Your task to perform on an android device: Open settings Image 0: 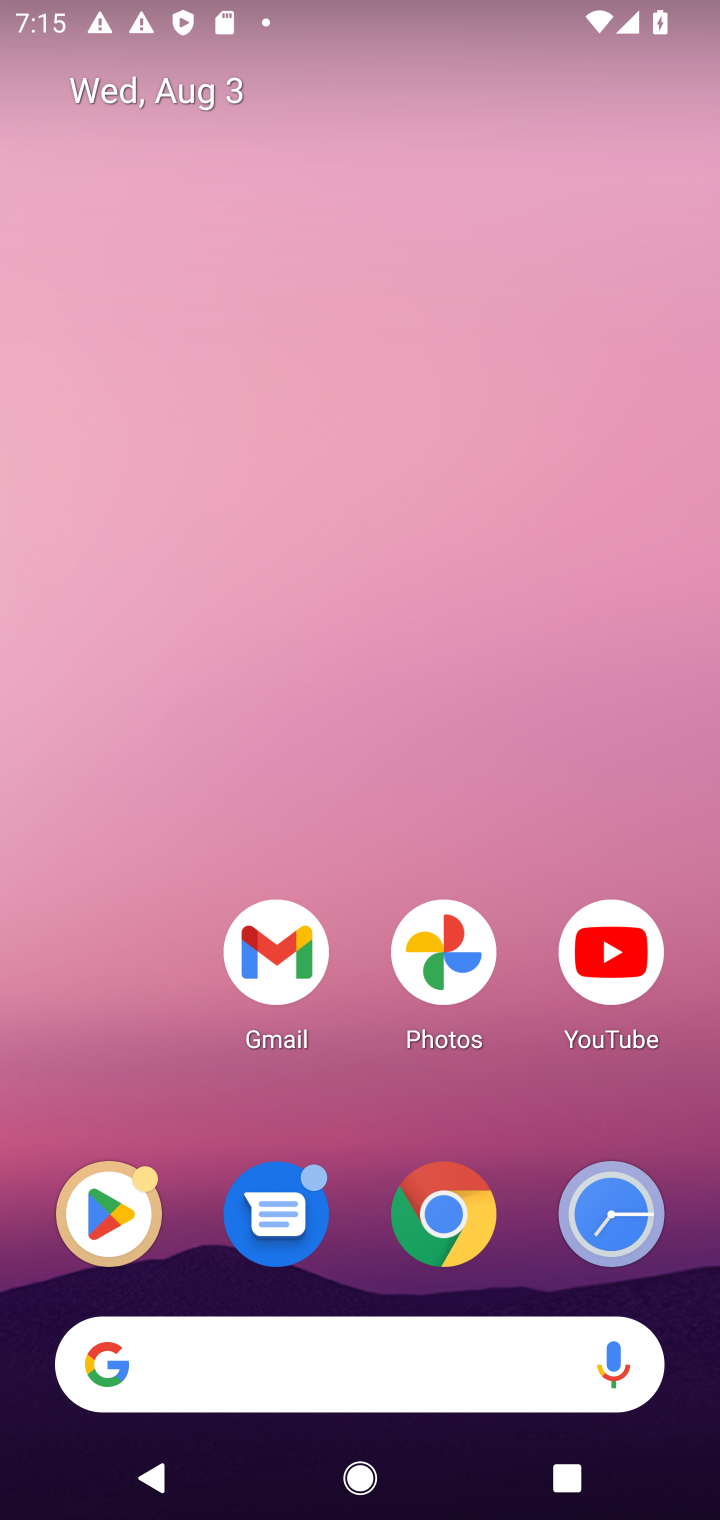
Step 0: drag from (352, 1142) to (539, 325)
Your task to perform on an android device: Open settings Image 1: 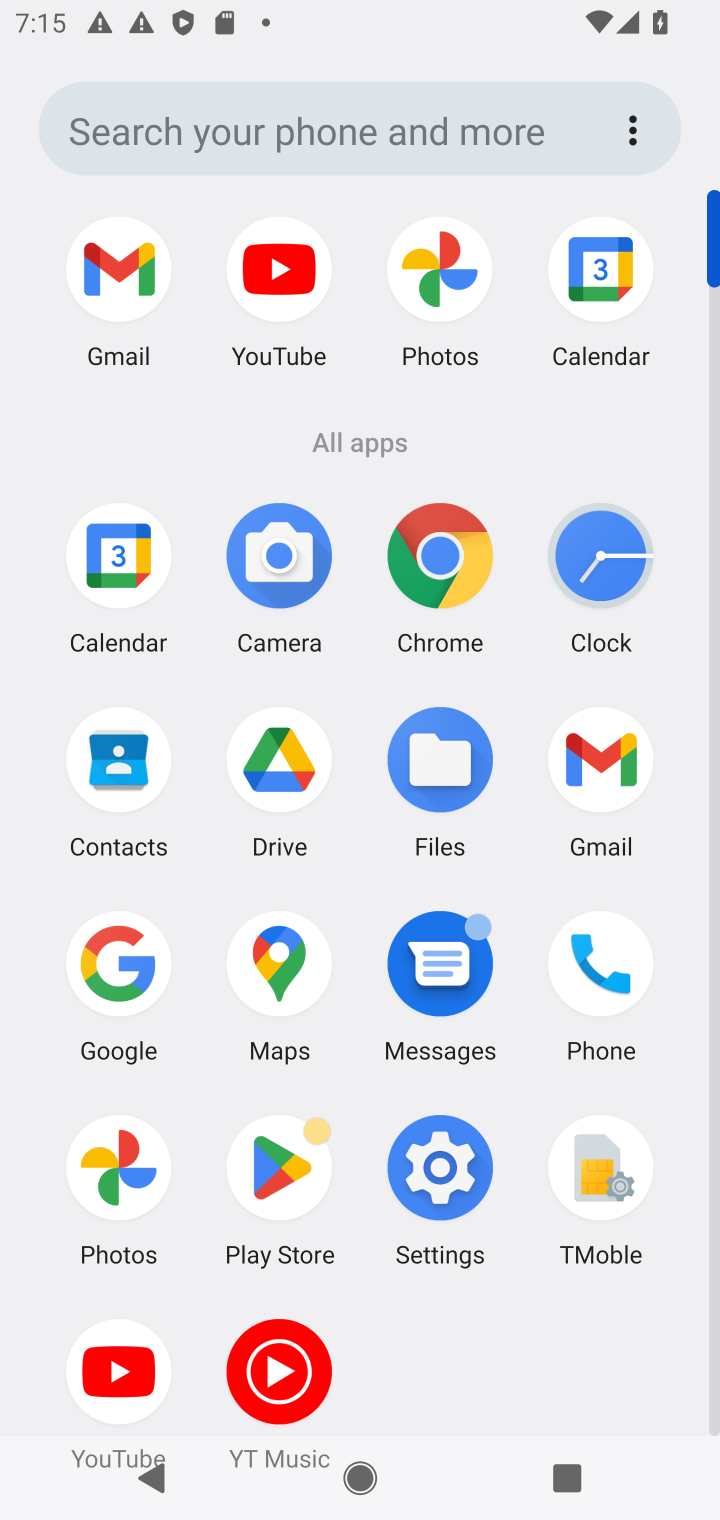
Step 1: click (430, 1181)
Your task to perform on an android device: Open settings Image 2: 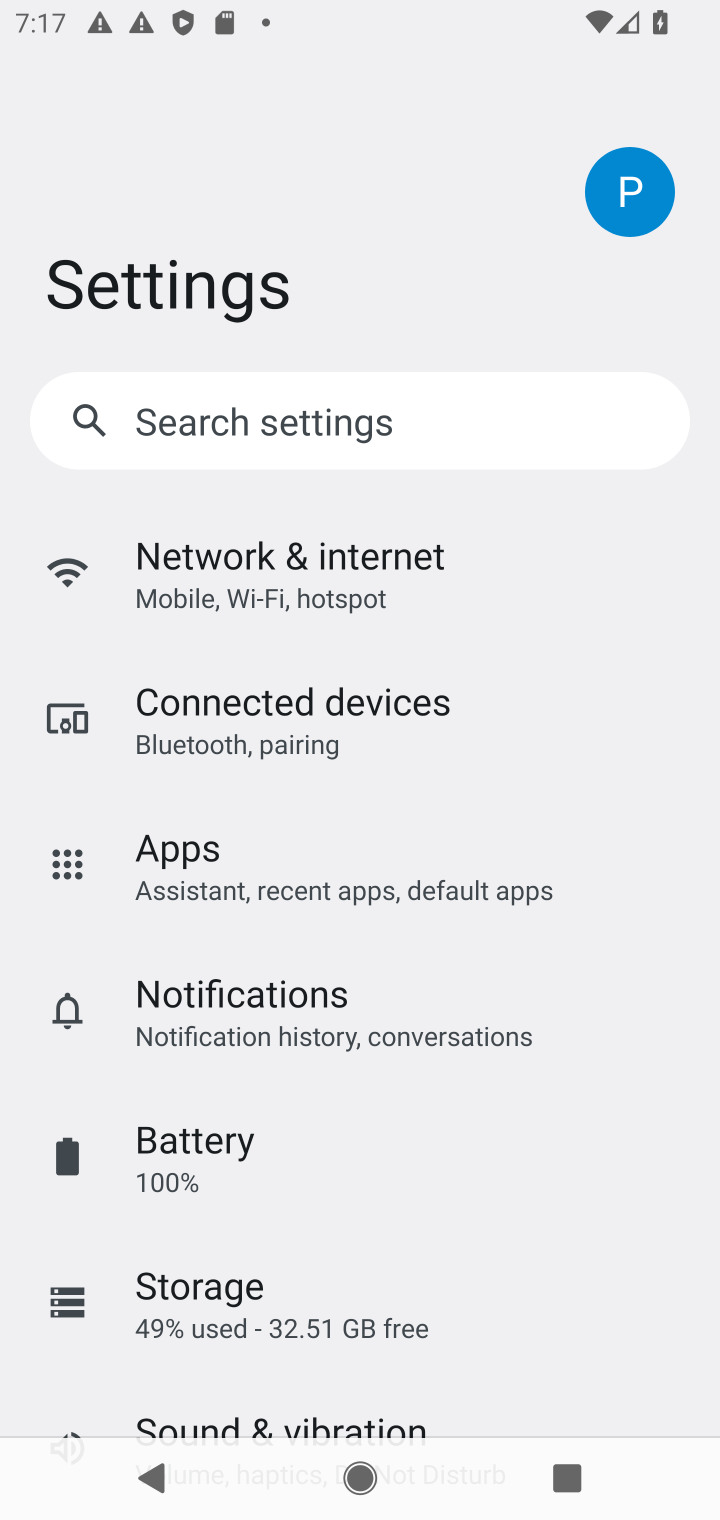
Step 2: task complete